Your task to perform on an android device: check data usage Image 0: 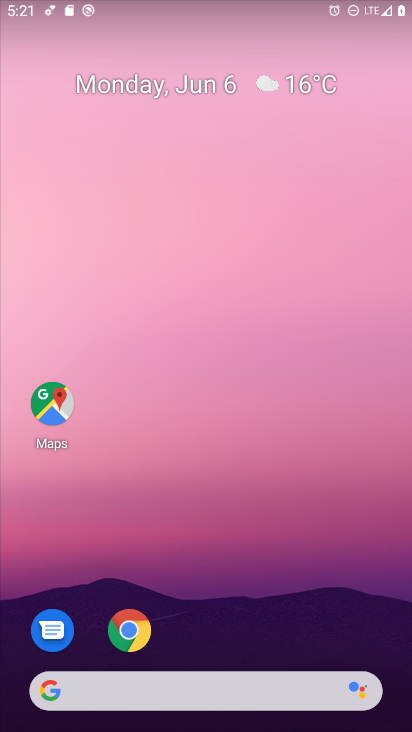
Step 0: drag from (320, 604) to (76, 34)
Your task to perform on an android device: check data usage Image 1: 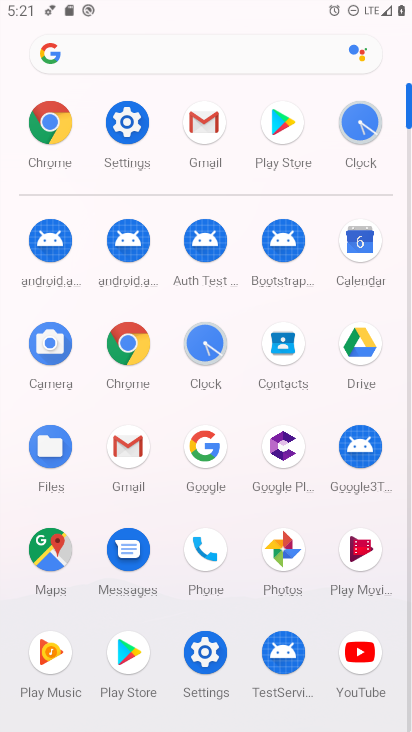
Step 1: click (135, 127)
Your task to perform on an android device: check data usage Image 2: 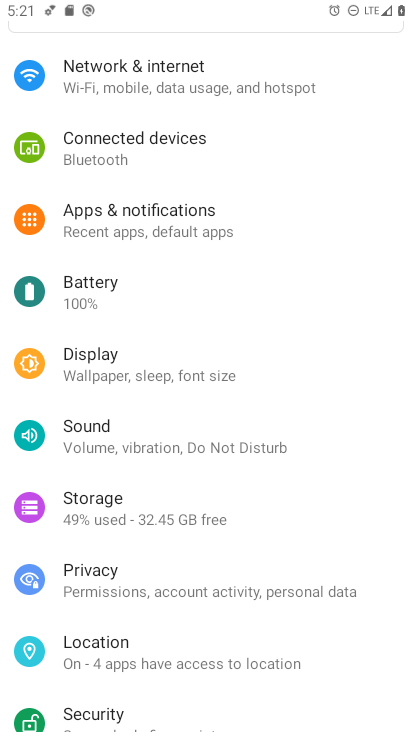
Step 2: click (198, 84)
Your task to perform on an android device: check data usage Image 3: 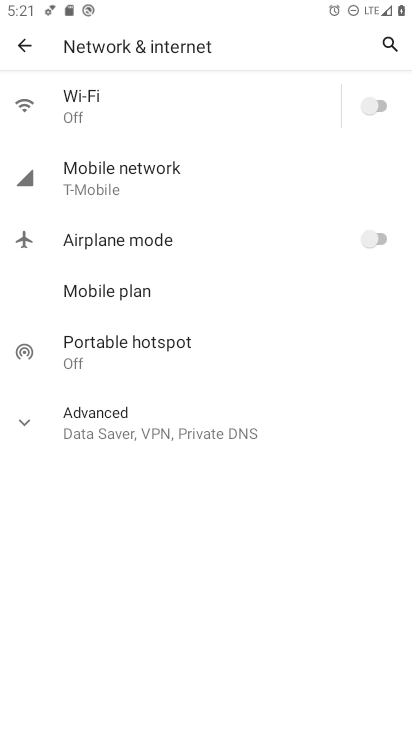
Step 3: click (148, 170)
Your task to perform on an android device: check data usage Image 4: 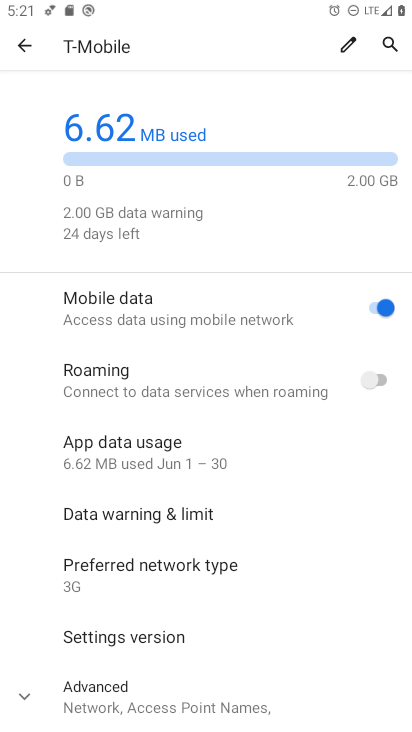
Step 4: task complete